Your task to perform on an android device: Open calendar and show me the third week of next month Image 0: 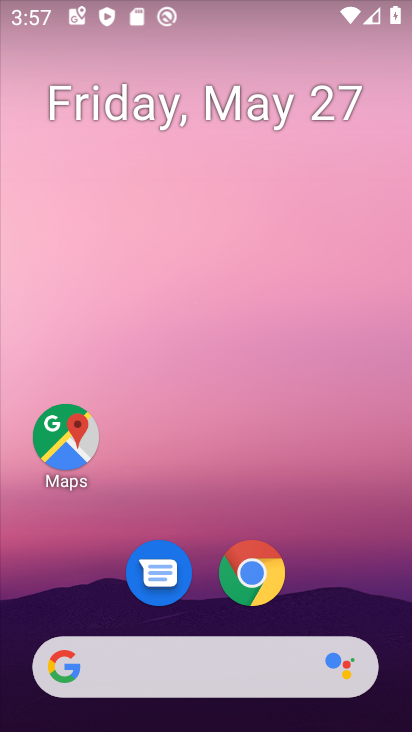
Step 0: drag from (338, 595) to (369, 124)
Your task to perform on an android device: Open calendar and show me the third week of next month Image 1: 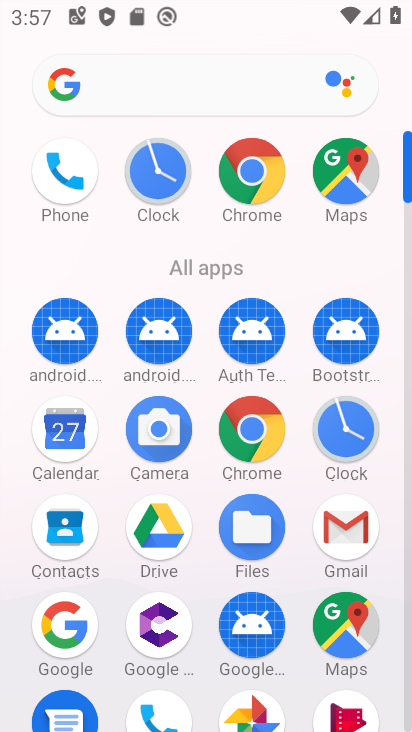
Step 1: click (70, 444)
Your task to perform on an android device: Open calendar and show me the third week of next month Image 2: 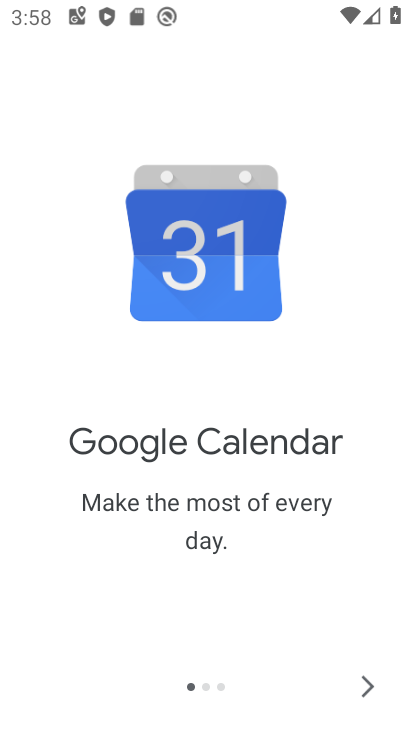
Step 2: click (356, 691)
Your task to perform on an android device: Open calendar and show me the third week of next month Image 3: 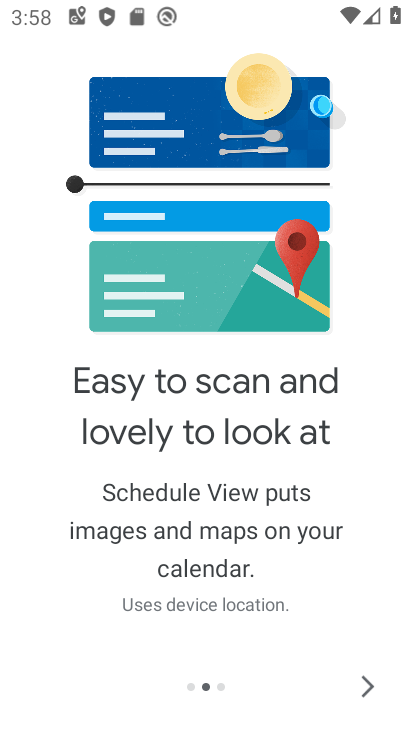
Step 3: click (356, 691)
Your task to perform on an android device: Open calendar and show me the third week of next month Image 4: 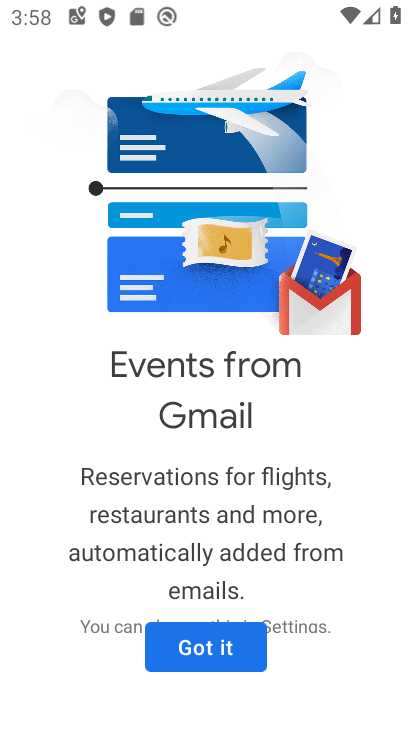
Step 4: click (244, 654)
Your task to perform on an android device: Open calendar and show me the third week of next month Image 5: 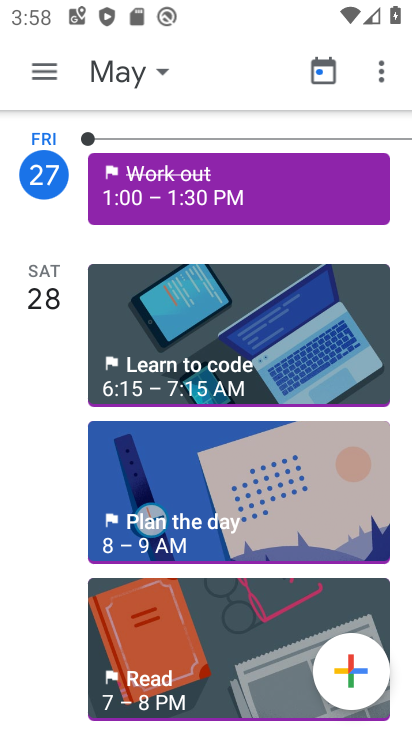
Step 5: click (159, 59)
Your task to perform on an android device: Open calendar and show me the third week of next month Image 6: 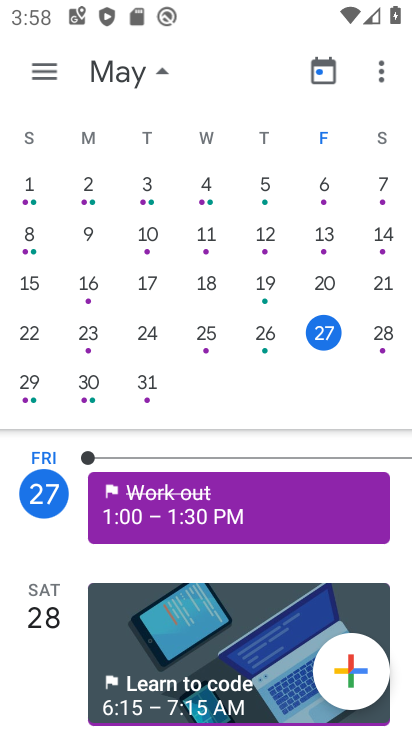
Step 6: drag from (331, 150) to (12, 226)
Your task to perform on an android device: Open calendar and show me the third week of next month Image 7: 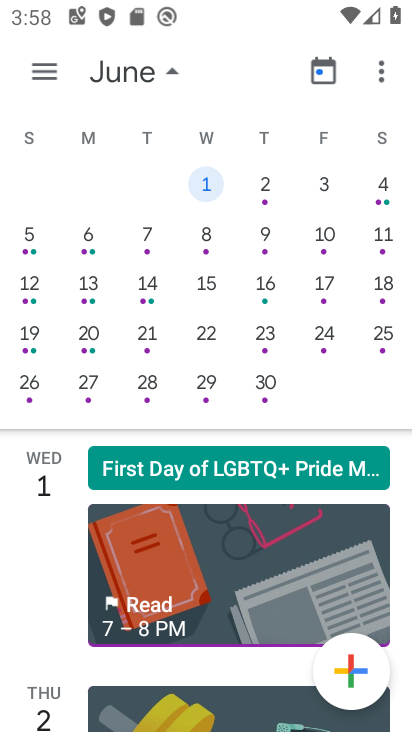
Step 7: click (91, 277)
Your task to perform on an android device: Open calendar and show me the third week of next month Image 8: 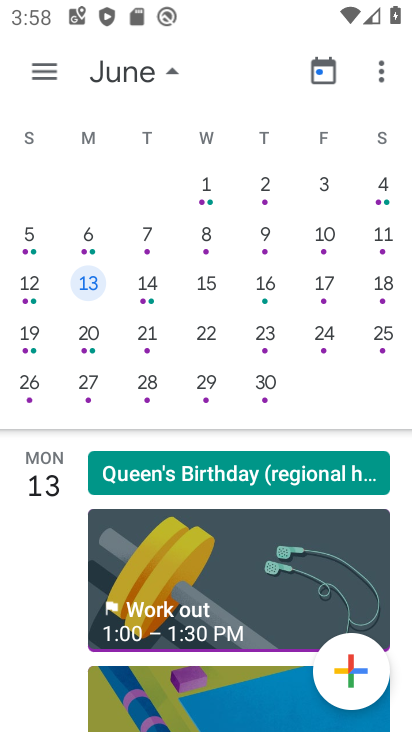
Step 8: task complete